Your task to perform on an android device: Search for energizer triple a on costco, select the first entry, add it to the cart, then select checkout. Image 0: 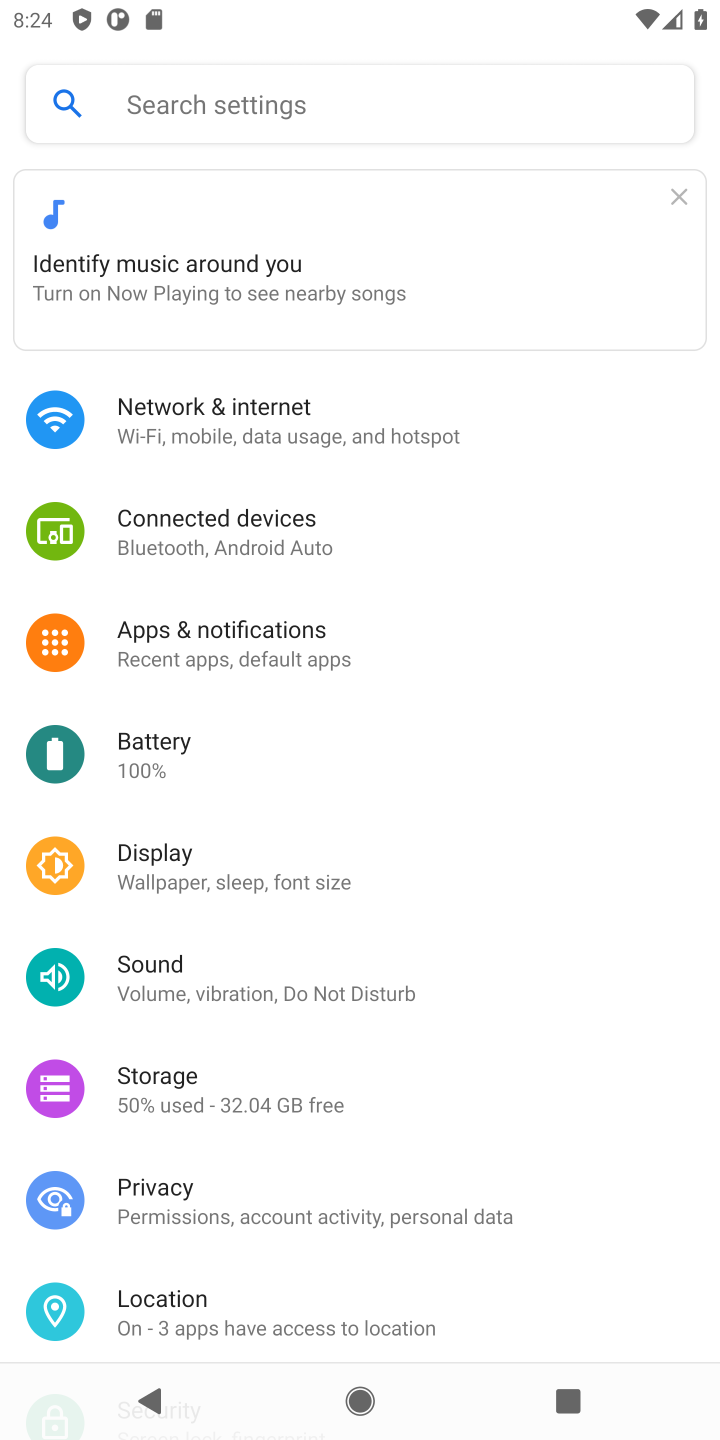
Step 0: press home button
Your task to perform on an android device: Search for energizer triple a on costco, select the first entry, add it to the cart, then select checkout. Image 1: 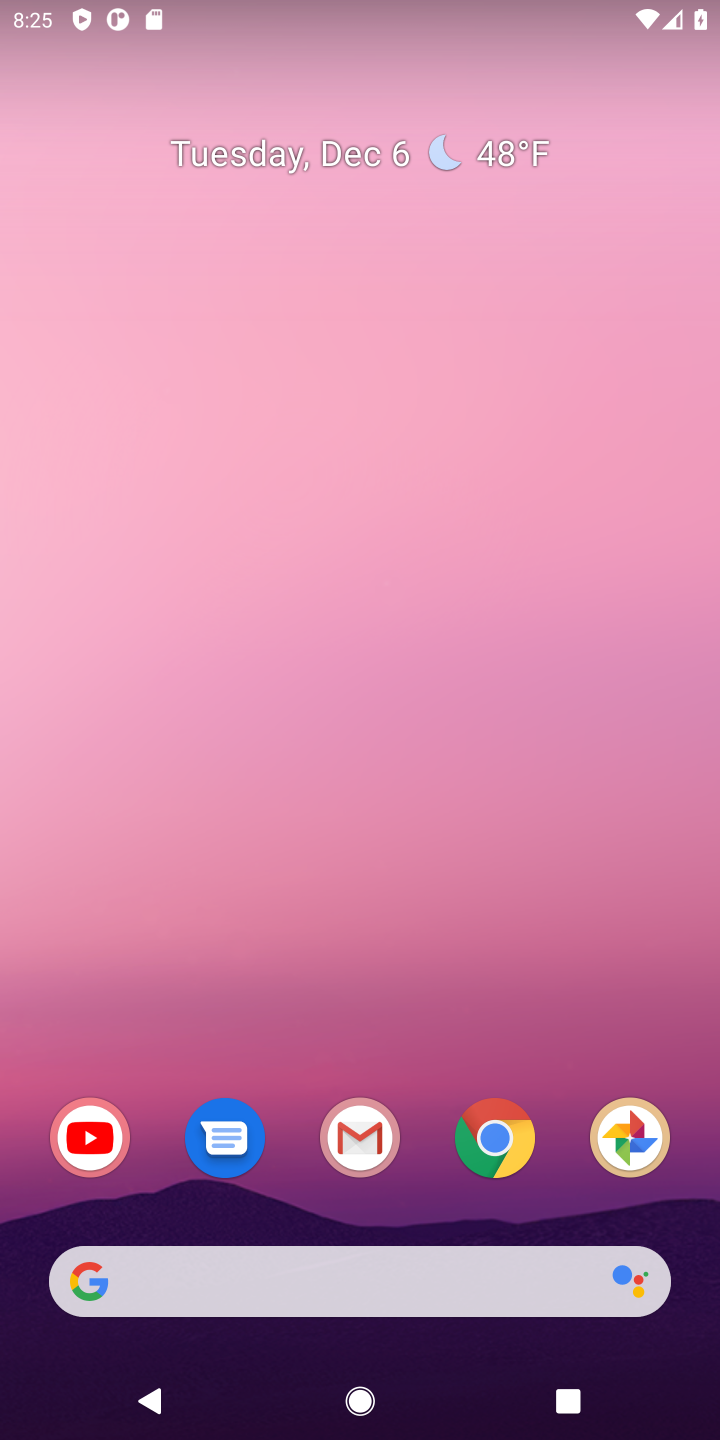
Step 1: click (493, 1149)
Your task to perform on an android device: Search for energizer triple a on costco, select the first entry, add it to the cart, then select checkout. Image 2: 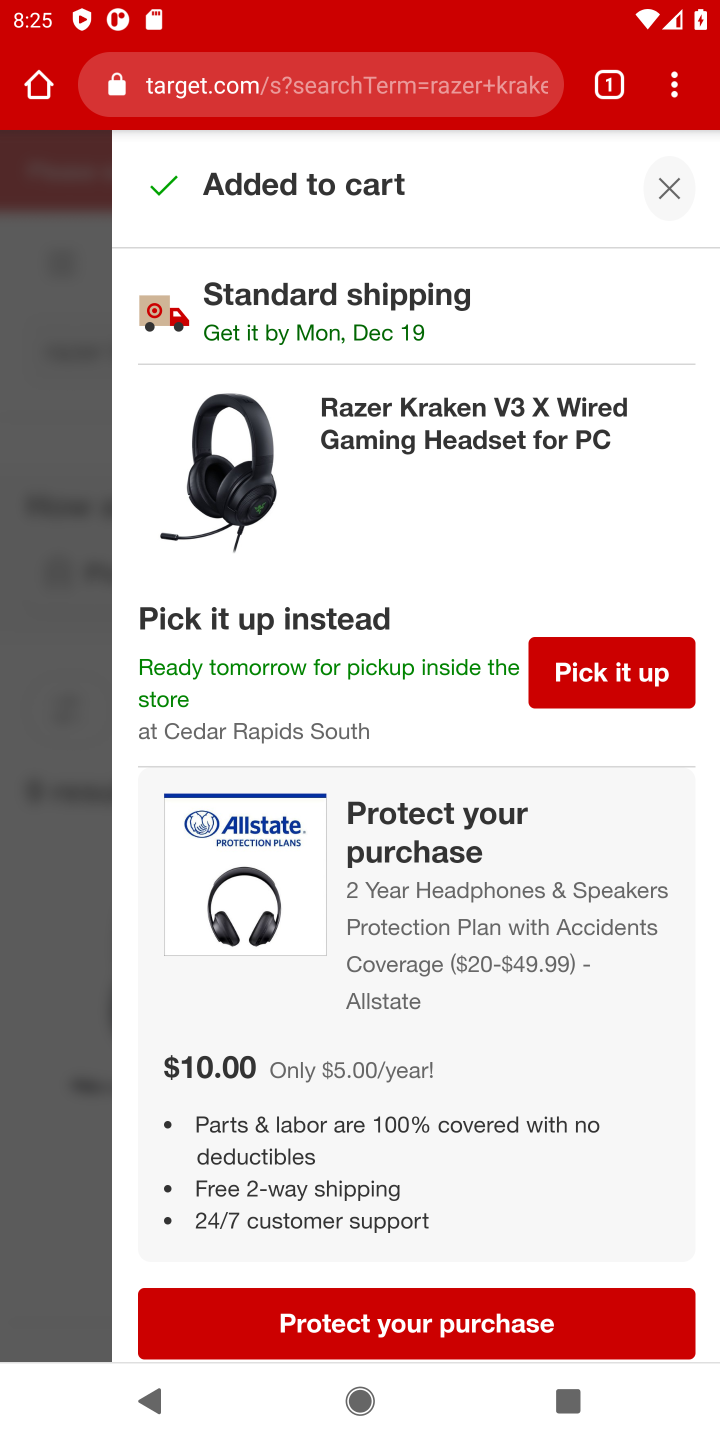
Step 2: click (336, 93)
Your task to perform on an android device: Search for energizer triple a on costco, select the first entry, add it to the cart, then select checkout. Image 3: 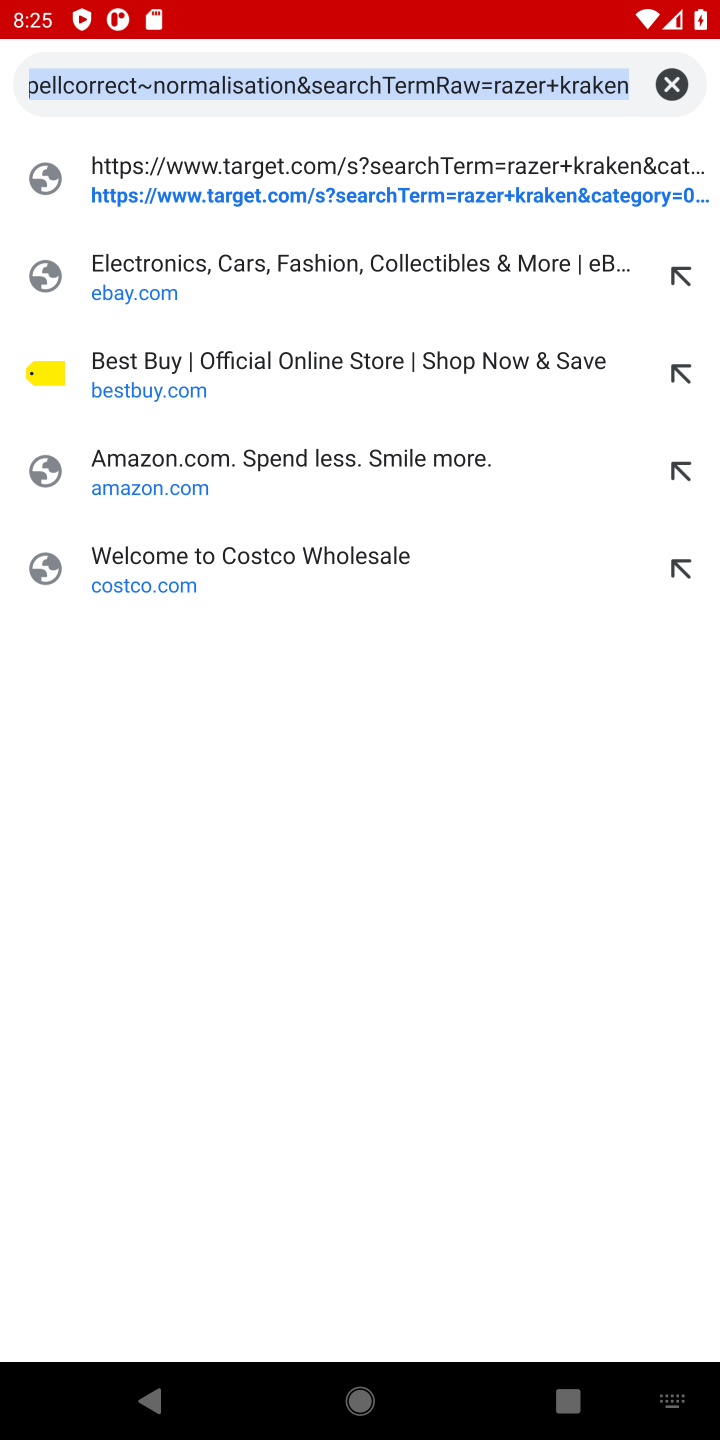
Step 3: click (161, 586)
Your task to perform on an android device: Search for energizer triple a on costco, select the first entry, add it to the cart, then select checkout. Image 4: 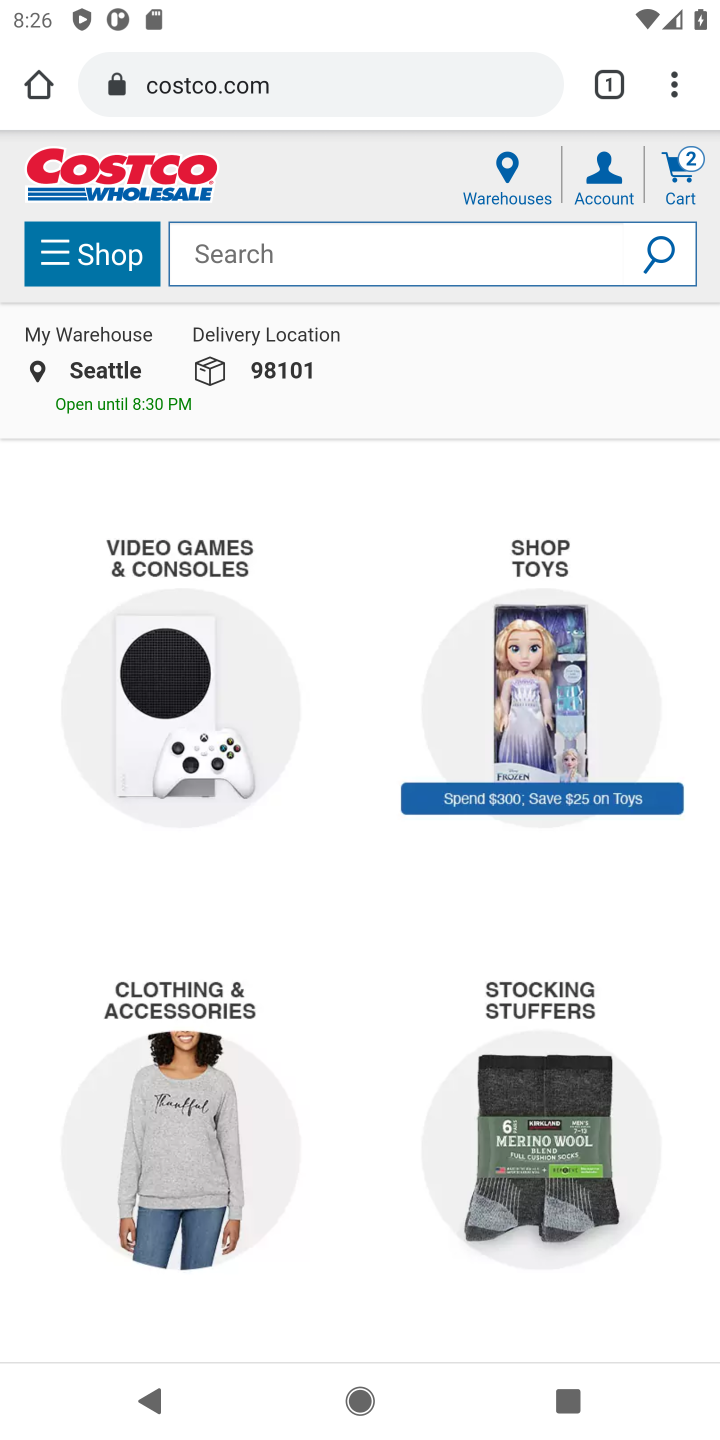
Step 4: click (298, 264)
Your task to perform on an android device: Search for energizer triple a on costco, select the first entry, add it to the cart, then select checkout. Image 5: 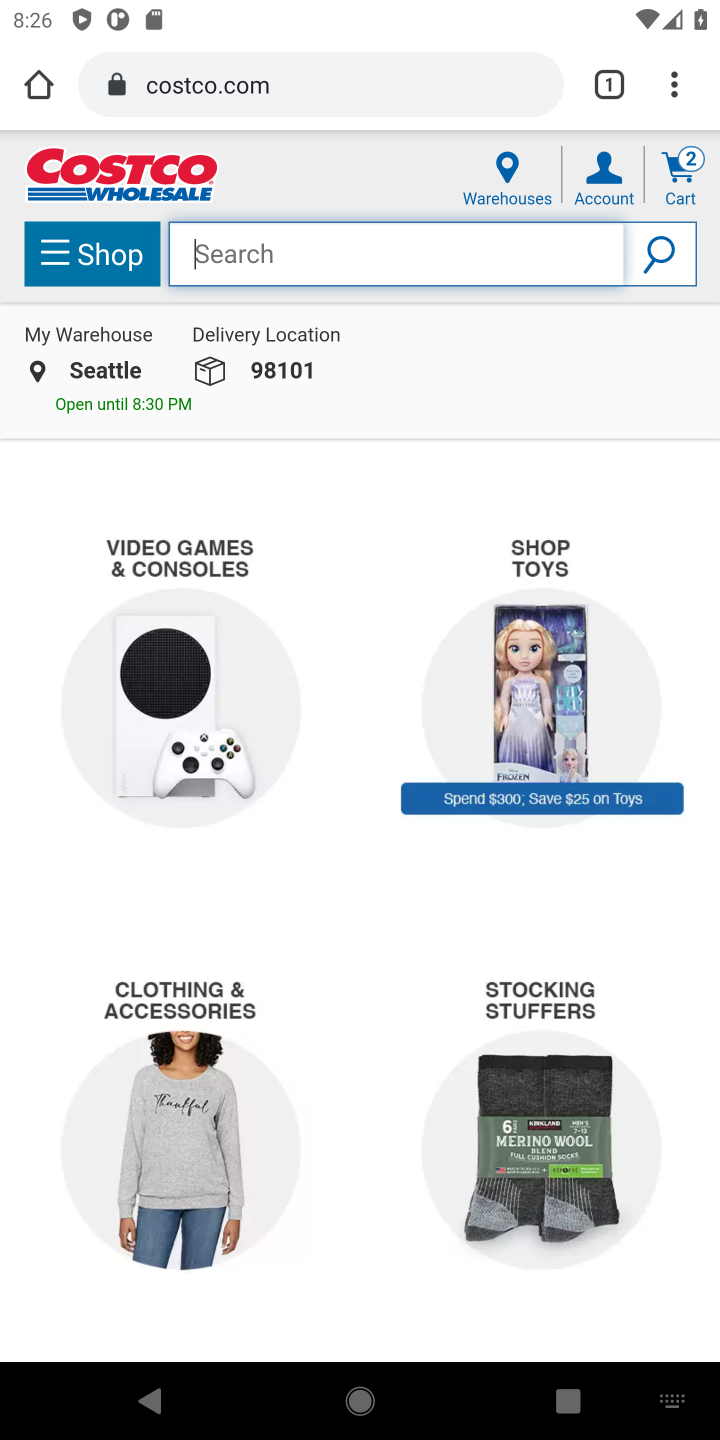
Step 5: type "energizer triple a"
Your task to perform on an android device: Search for energizer triple a on costco, select the first entry, add it to the cart, then select checkout. Image 6: 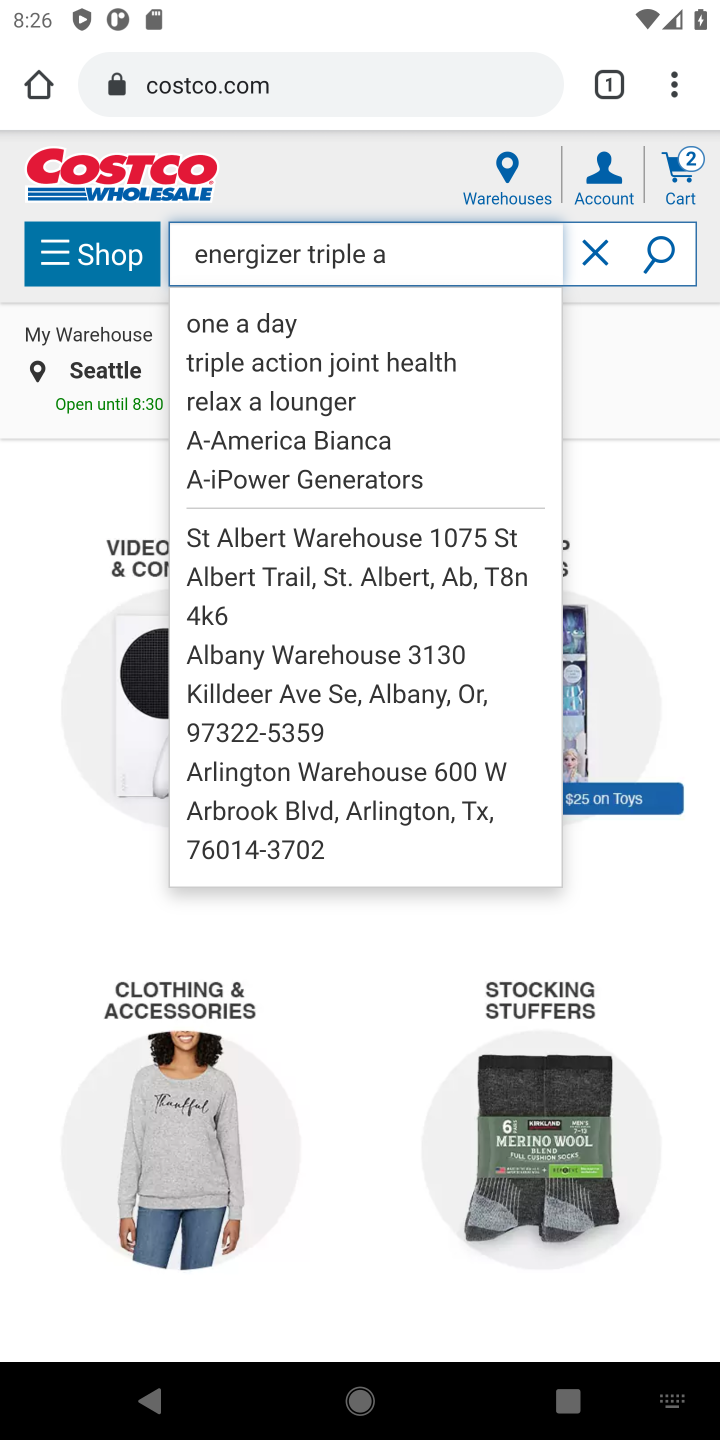
Step 6: click (671, 255)
Your task to perform on an android device: Search for energizer triple a on costco, select the first entry, add it to the cart, then select checkout. Image 7: 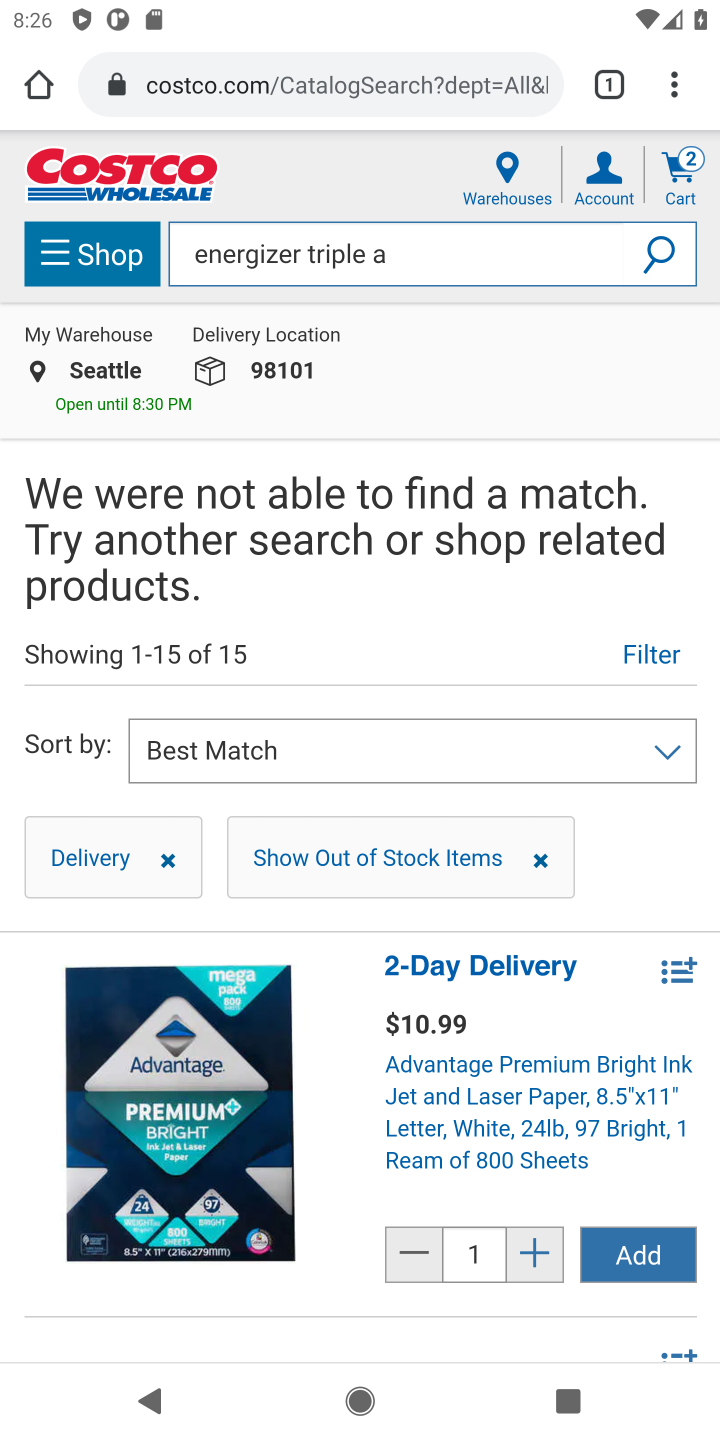
Step 7: task complete